Your task to perform on an android device: find photos in the google photos app Image 0: 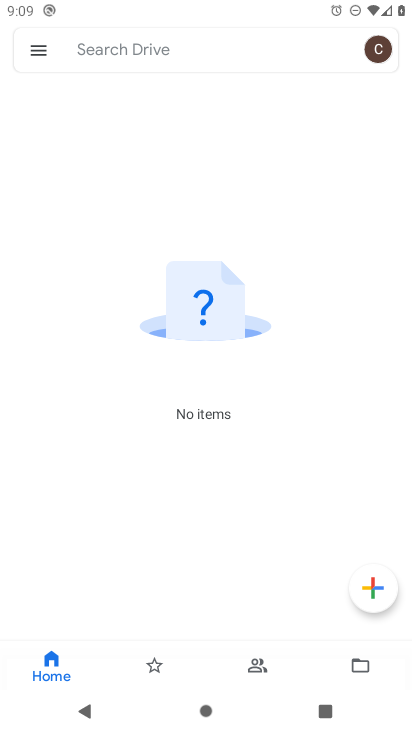
Step 0: click (42, 44)
Your task to perform on an android device: find photos in the google photos app Image 1: 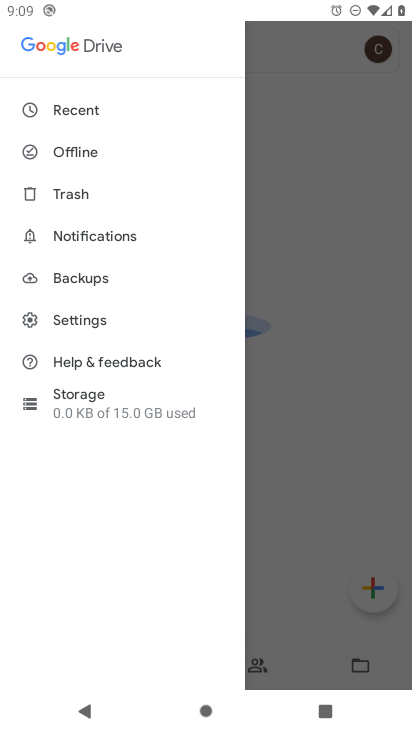
Step 1: click (58, 113)
Your task to perform on an android device: find photos in the google photos app Image 2: 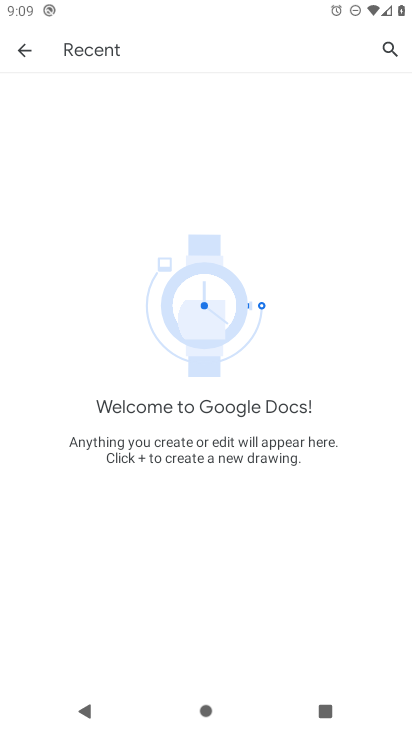
Step 2: task complete